Your task to perform on an android device: Open Google Chrome Image 0: 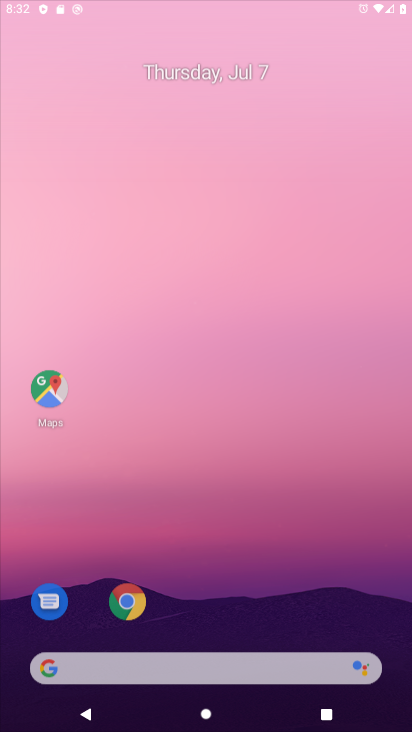
Step 0: click (203, 243)
Your task to perform on an android device: Open Google Chrome Image 1: 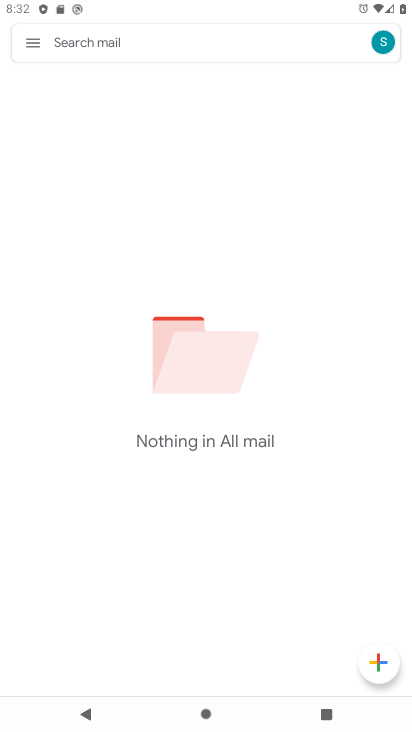
Step 1: press home button
Your task to perform on an android device: Open Google Chrome Image 2: 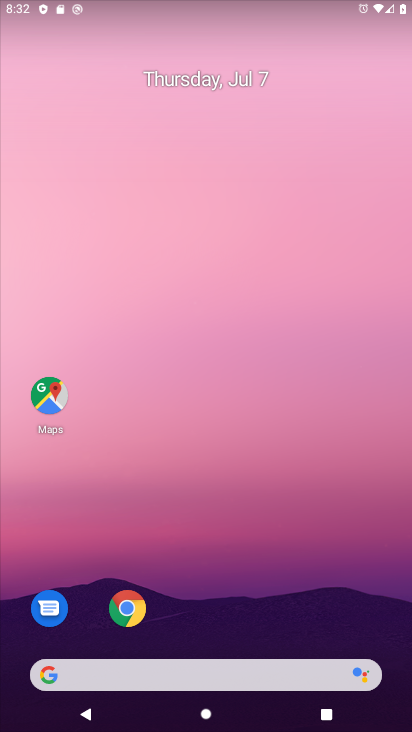
Step 2: drag from (171, 632) to (161, 328)
Your task to perform on an android device: Open Google Chrome Image 3: 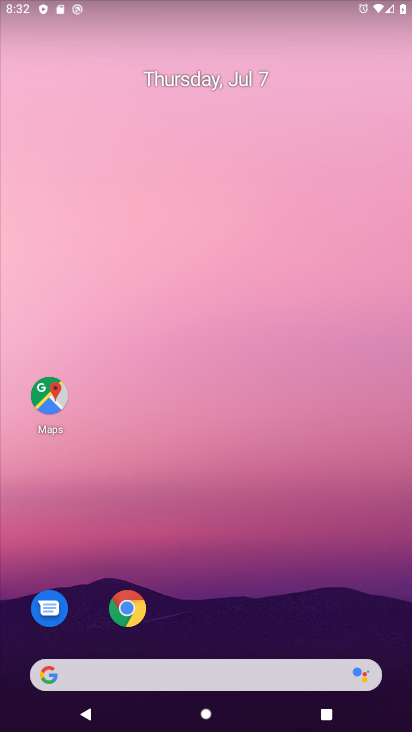
Step 3: drag from (208, 556) to (210, 364)
Your task to perform on an android device: Open Google Chrome Image 4: 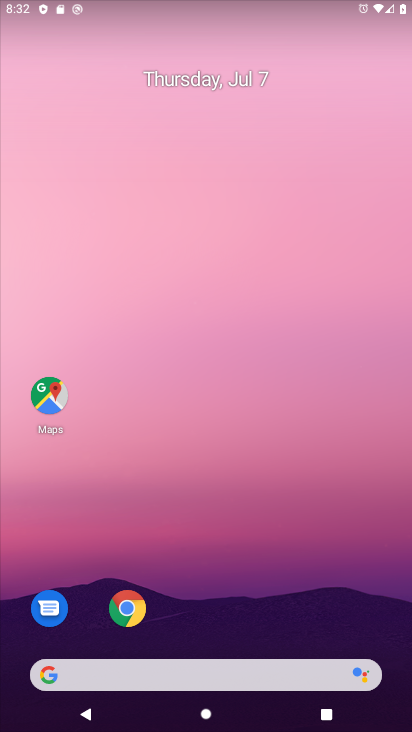
Step 4: drag from (147, 656) to (198, 311)
Your task to perform on an android device: Open Google Chrome Image 5: 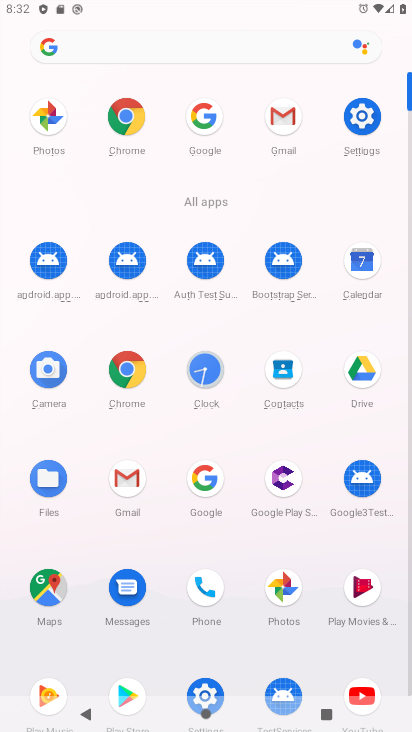
Step 5: click (118, 118)
Your task to perform on an android device: Open Google Chrome Image 6: 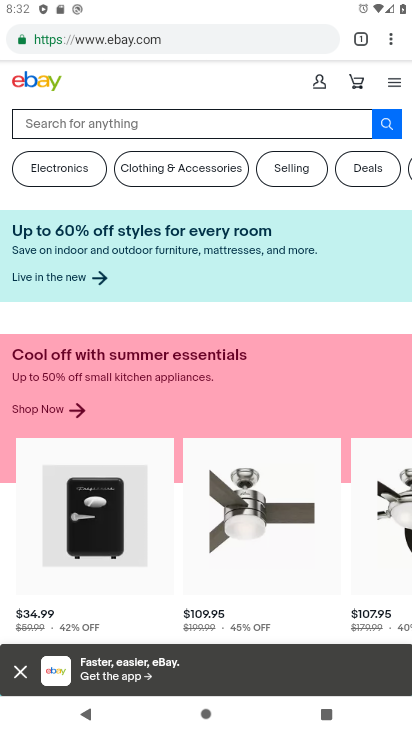
Step 6: click (356, 32)
Your task to perform on an android device: Open Google Chrome Image 7: 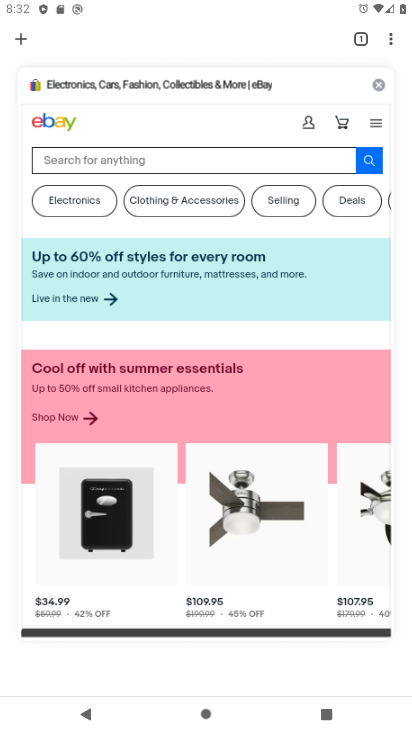
Step 7: click (373, 82)
Your task to perform on an android device: Open Google Chrome Image 8: 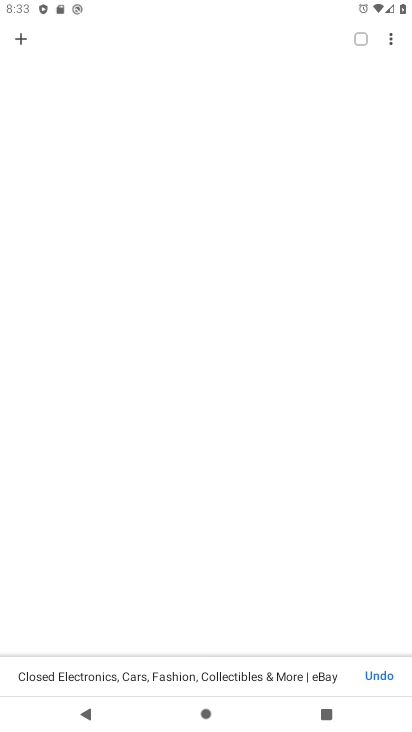
Step 8: click (18, 35)
Your task to perform on an android device: Open Google Chrome Image 9: 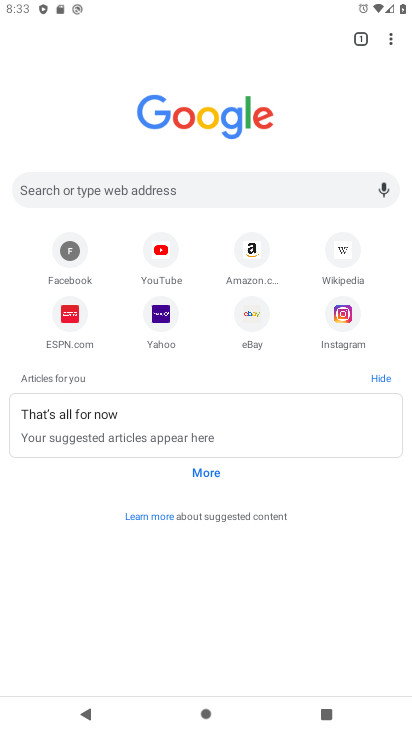
Step 9: task complete